Your task to perform on an android device: Search for pizza restaurants on Maps Image 0: 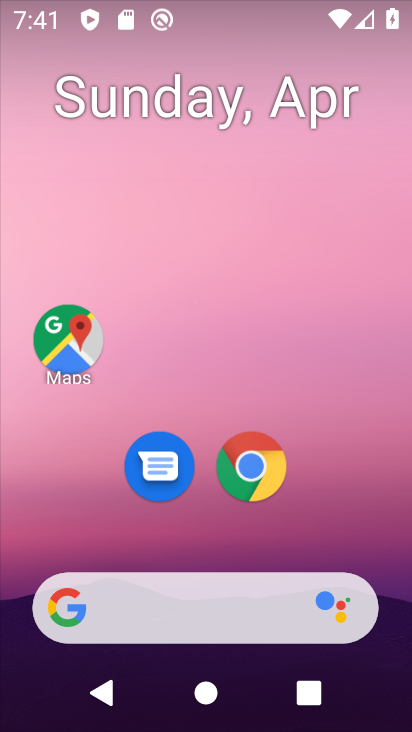
Step 0: click (75, 361)
Your task to perform on an android device: Search for pizza restaurants on Maps Image 1: 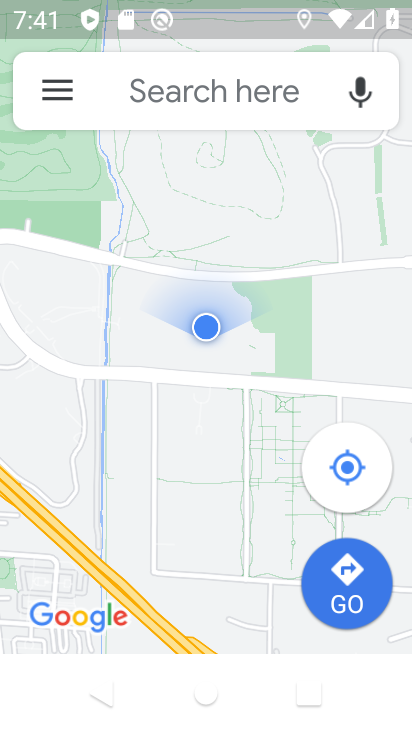
Step 1: click (210, 97)
Your task to perform on an android device: Search for pizza restaurants on Maps Image 2: 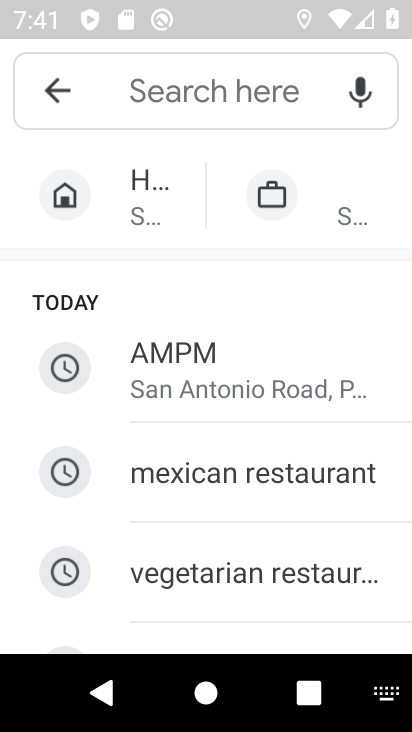
Step 2: type "pizza restaurants"
Your task to perform on an android device: Search for pizza restaurants on Maps Image 3: 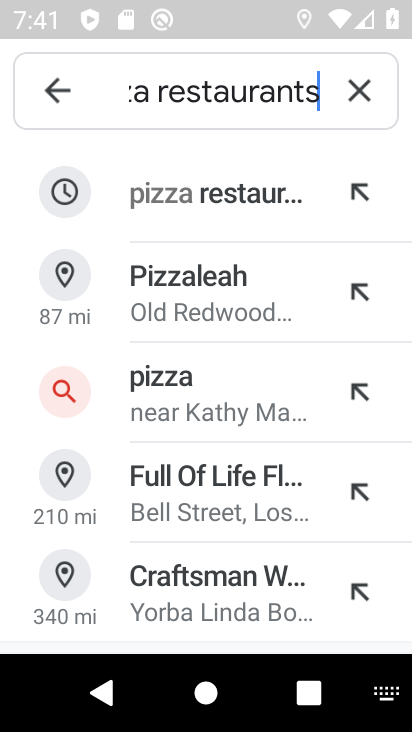
Step 3: click (224, 213)
Your task to perform on an android device: Search for pizza restaurants on Maps Image 4: 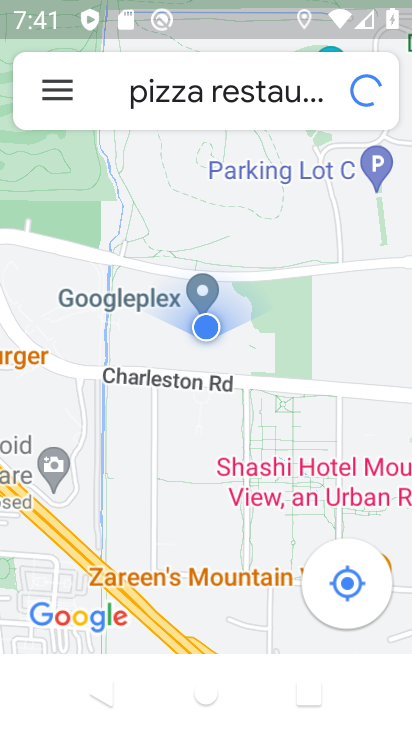
Step 4: click (225, 214)
Your task to perform on an android device: Search for pizza restaurants on Maps Image 5: 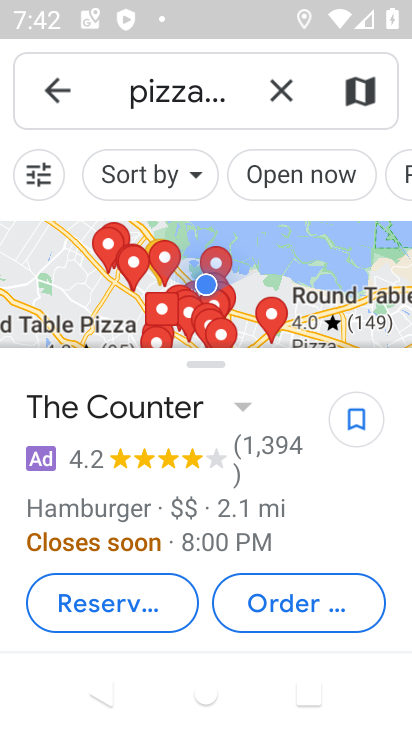
Step 5: task complete